Your task to perform on an android device: Open Google Maps Image 0: 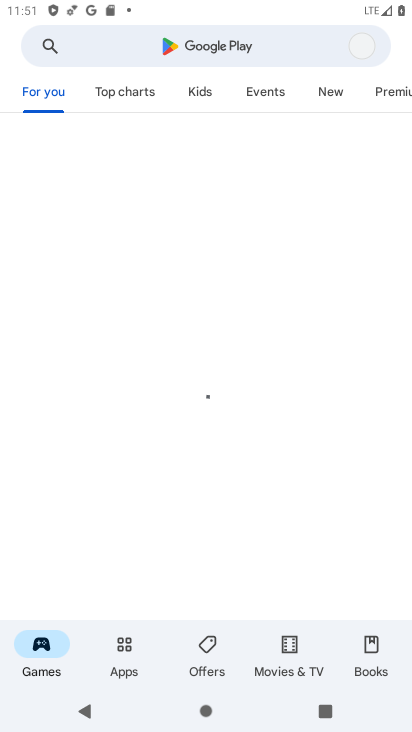
Step 0: press home button
Your task to perform on an android device: Open Google Maps Image 1: 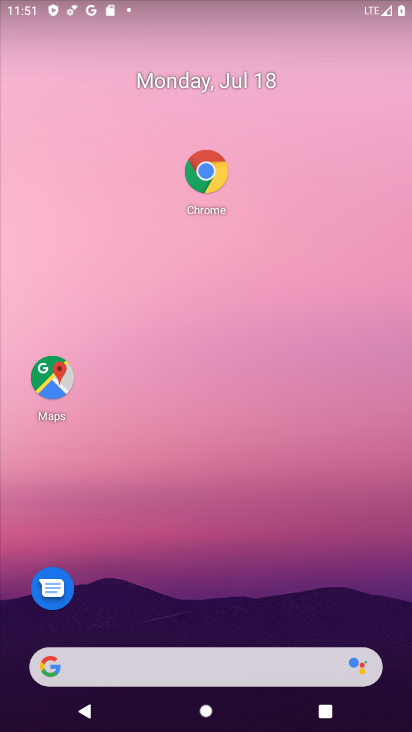
Step 1: click (73, 391)
Your task to perform on an android device: Open Google Maps Image 2: 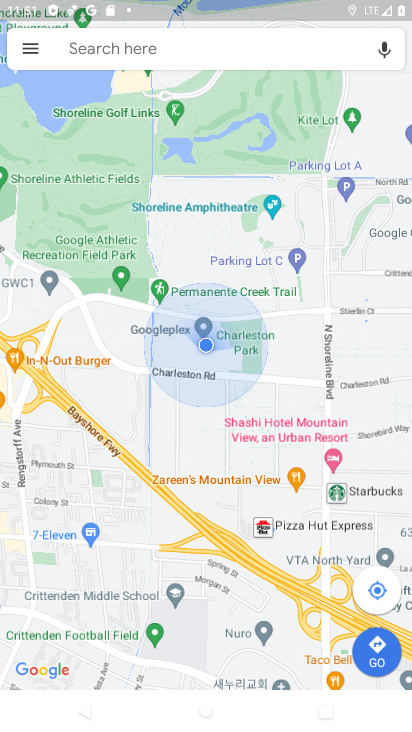
Step 2: task complete